Your task to perform on an android device: turn off sleep mode Image 0: 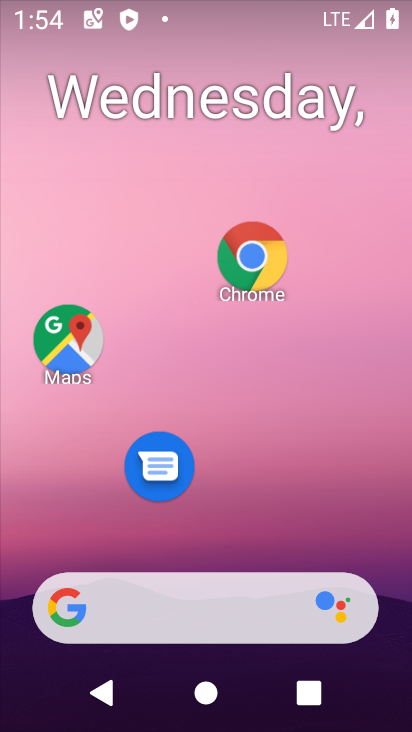
Step 0: drag from (257, 531) to (282, 60)
Your task to perform on an android device: turn off sleep mode Image 1: 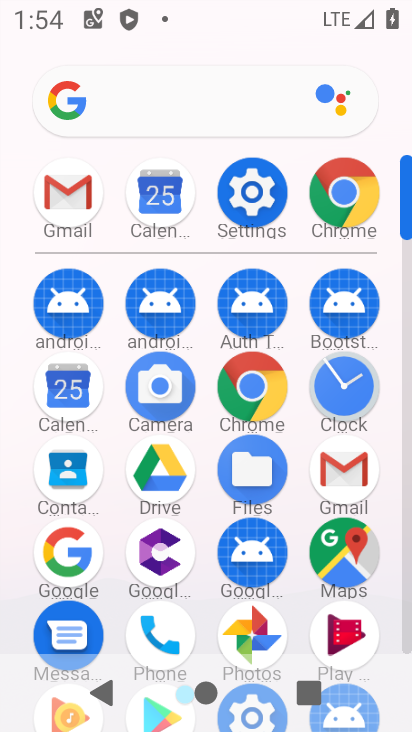
Step 1: click (259, 204)
Your task to perform on an android device: turn off sleep mode Image 2: 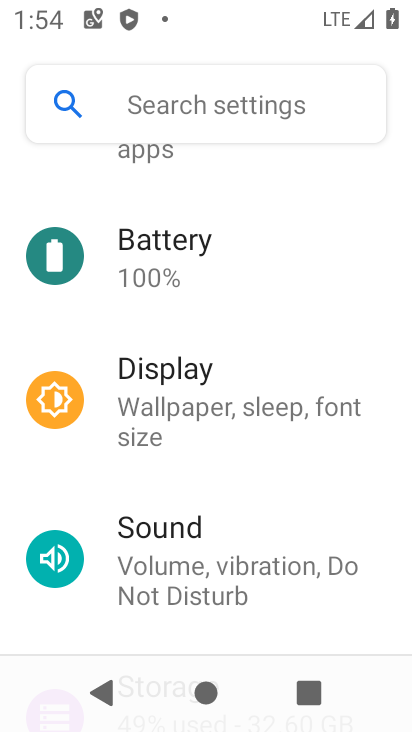
Step 2: click (181, 413)
Your task to perform on an android device: turn off sleep mode Image 3: 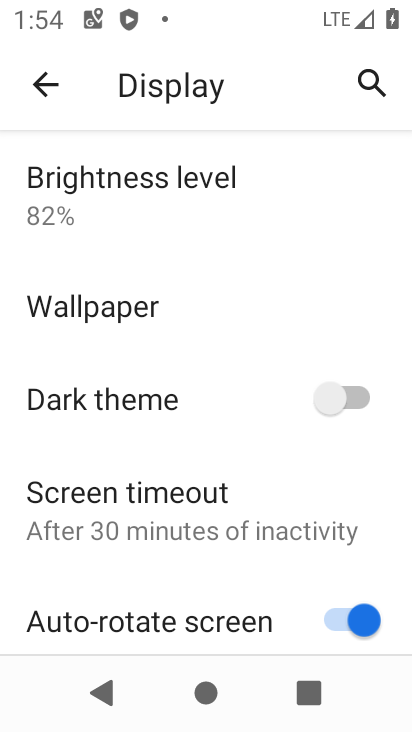
Step 3: task complete